Your task to perform on an android device: Open calendar and show me the fourth week of next month Image 0: 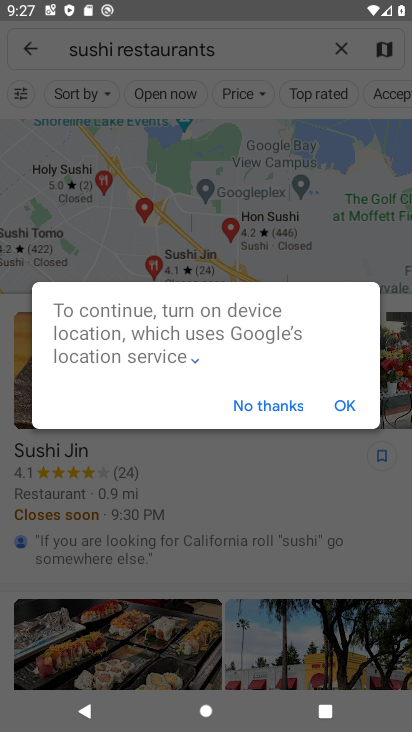
Step 0: press home button
Your task to perform on an android device: Open calendar and show me the fourth week of next month Image 1: 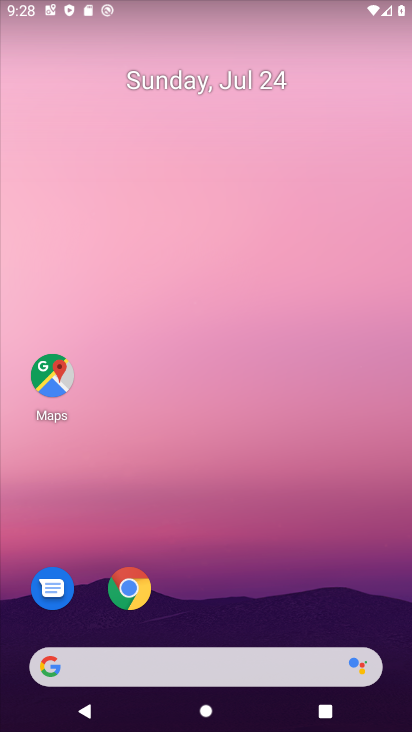
Step 1: drag from (231, 635) to (224, 64)
Your task to perform on an android device: Open calendar and show me the fourth week of next month Image 2: 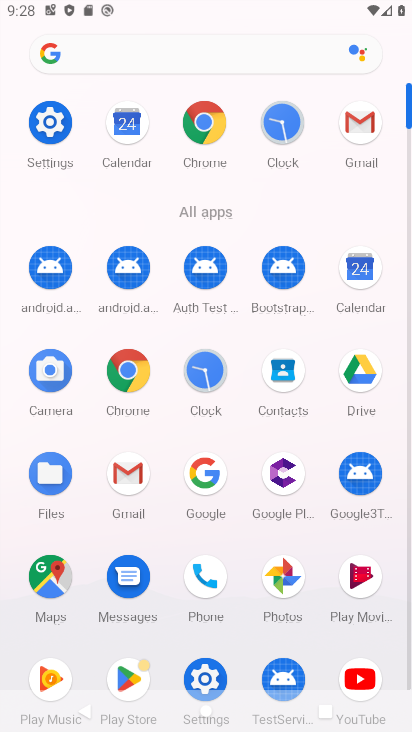
Step 2: click (119, 130)
Your task to perform on an android device: Open calendar and show me the fourth week of next month Image 3: 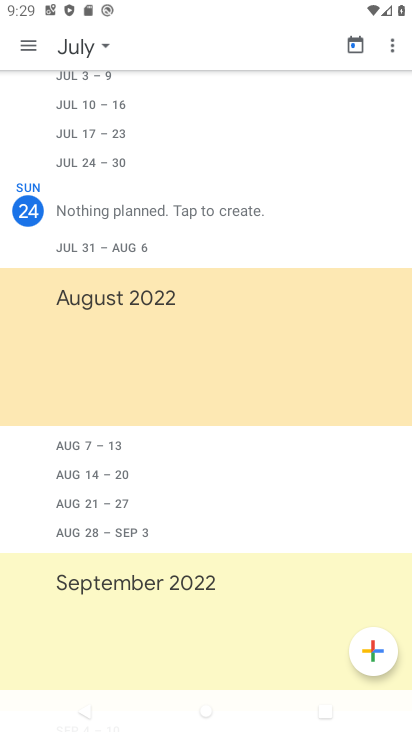
Step 3: click (103, 44)
Your task to perform on an android device: Open calendar and show me the fourth week of next month Image 4: 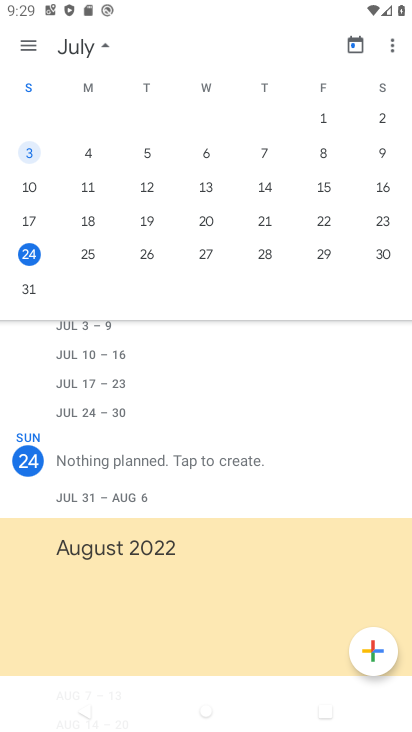
Step 4: drag from (294, 168) to (0, 71)
Your task to perform on an android device: Open calendar and show me the fourth week of next month Image 5: 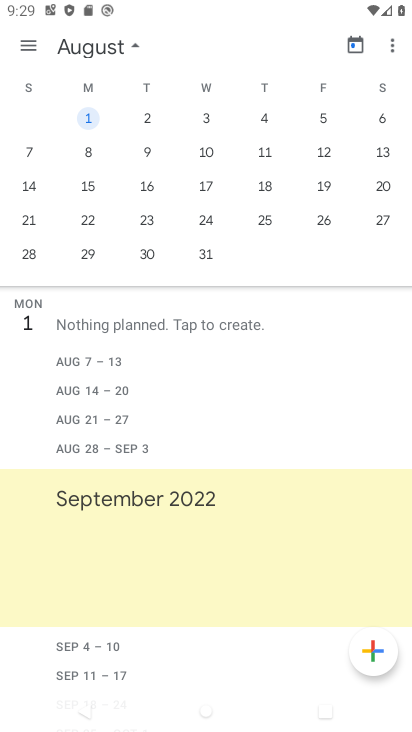
Step 5: click (23, 46)
Your task to perform on an android device: Open calendar and show me the fourth week of next month Image 6: 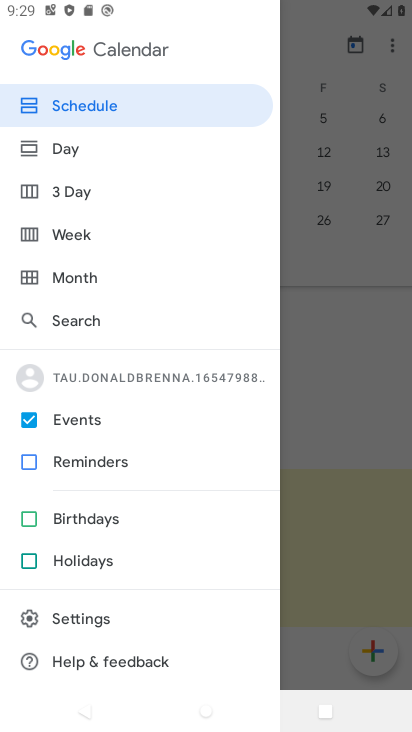
Step 6: click (56, 248)
Your task to perform on an android device: Open calendar and show me the fourth week of next month Image 7: 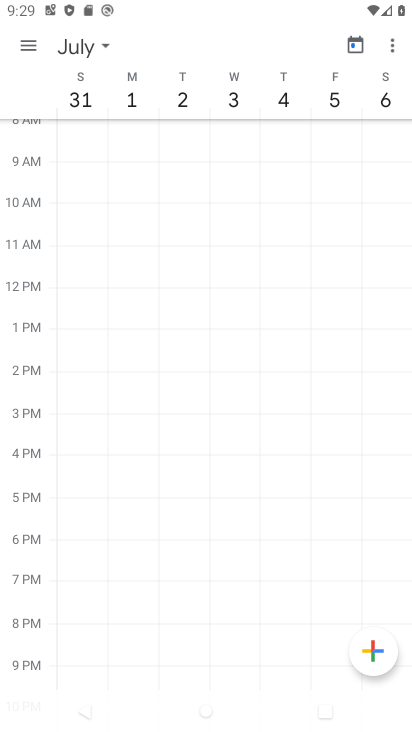
Step 7: task complete